Your task to perform on an android device: change the upload size in google photos Image 0: 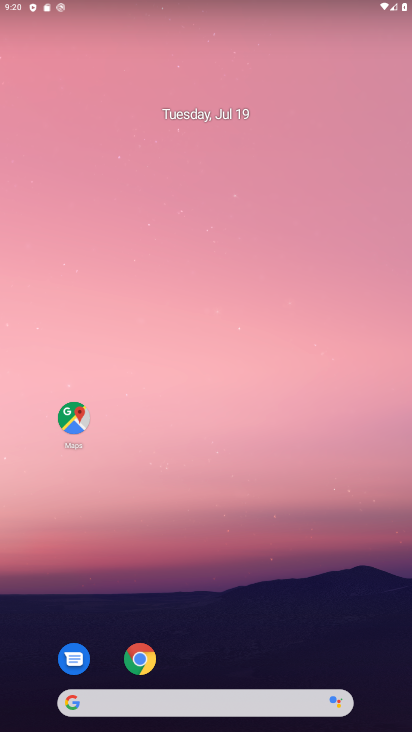
Step 0: drag from (240, 630) to (28, 89)
Your task to perform on an android device: change the upload size in google photos Image 1: 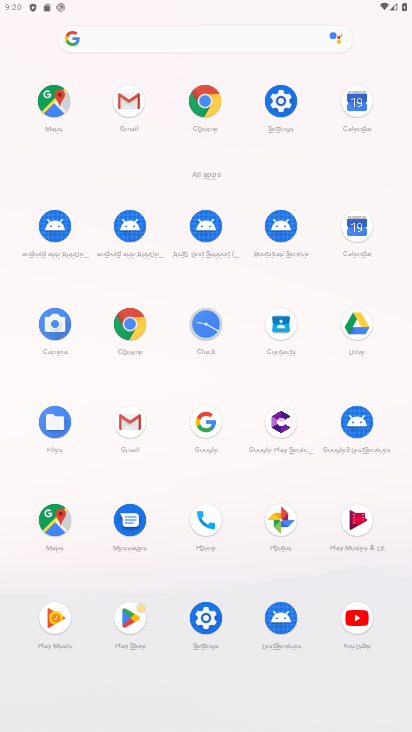
Step 1: click (257, 512)
Your task to perform on an android device: change the upload size in google photos Image 2: 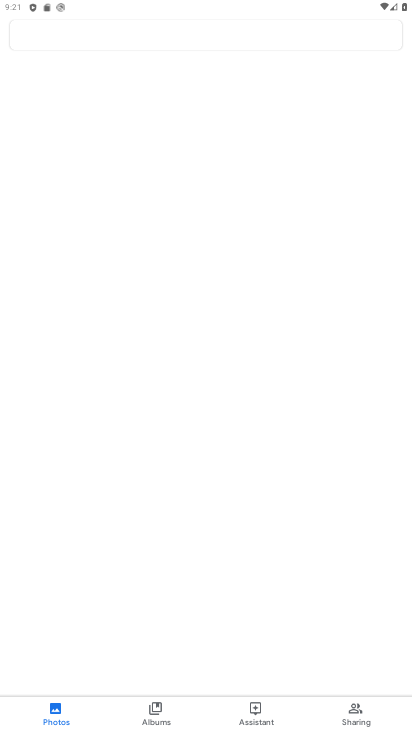
Step 2: drag from (221, 592) to (275, 367)
Your task to perform on an android device: change the upload size in google photos Image 3: 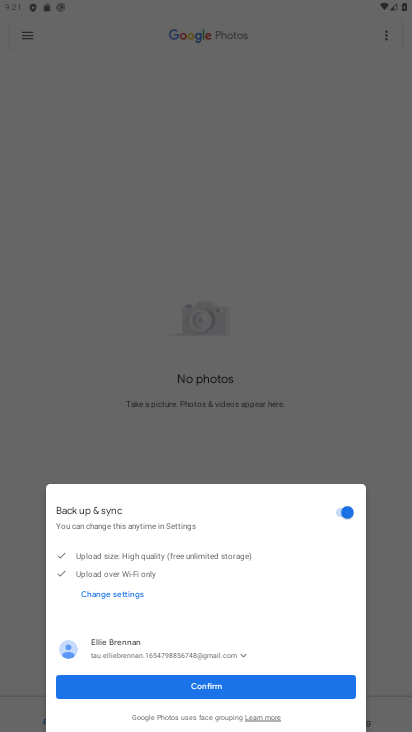
Step 3: click (157, 692)
Your task to perform on an android device: change the upload size in google photos Image 4: 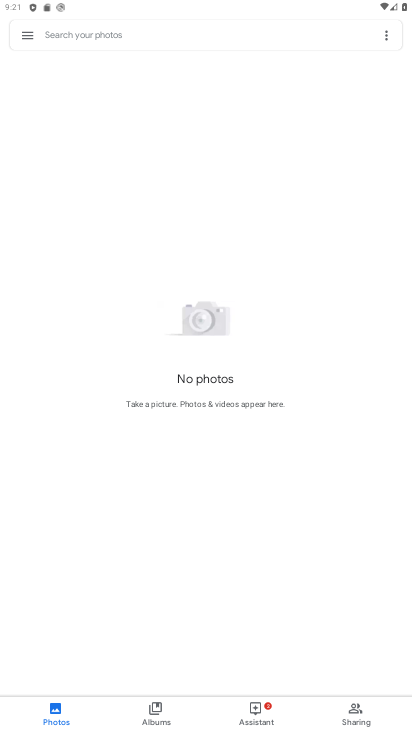
Step 4: drag from (243, 646) to (343, 373)
Your task to perform on an android device: change the upload size in google photos Image 5: 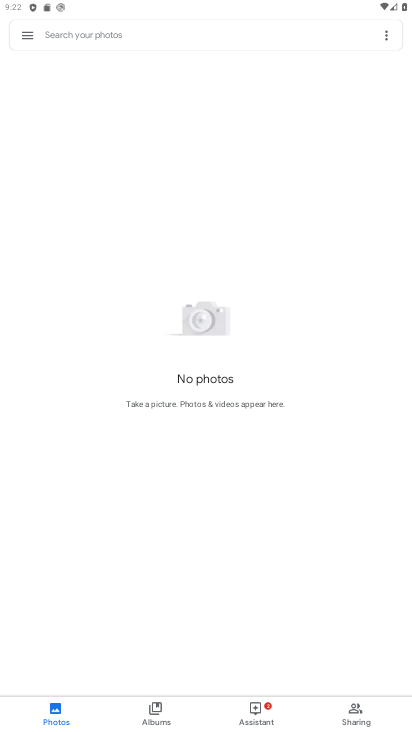
Step 5: drag from (304, 561) to (392, 248)
Your task to perform on an android device: change the upload size in google photos Image 6: 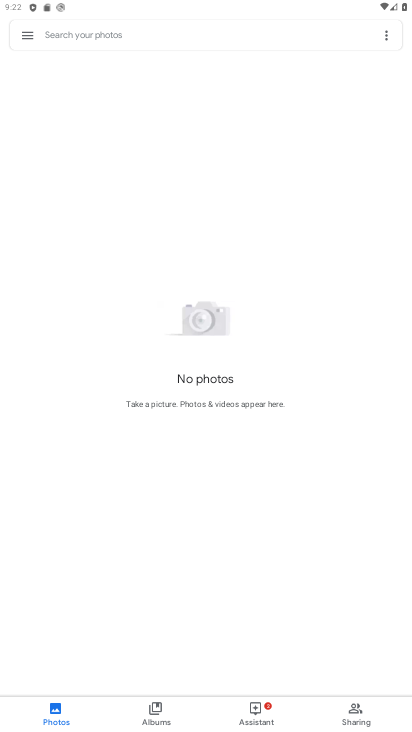
Step 6: click (18, 27)
Your task to perform on an android device: change the upload size in google photos Image 7: 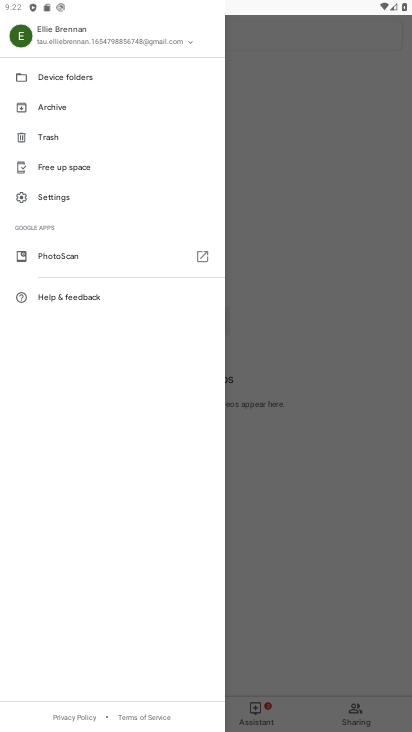
Step 7: click (28, 197)
Your task to perform on an android device: change the upload size in google photos Image 8: 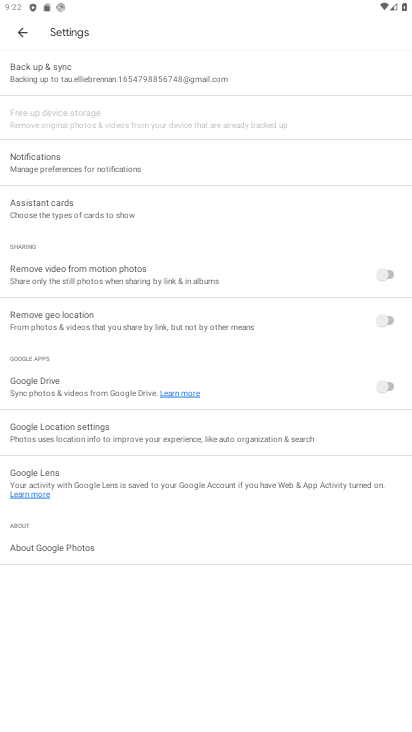
Step 8: drag from (156, 618) to (239, 342)
Your task to perform on an android device: change the upload size in google photos Image 9: 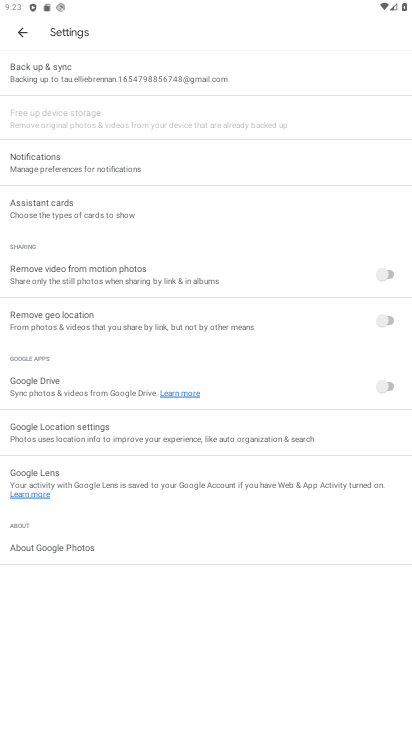
Step 9: drag from (132, 469) to (201, 138)
Your task to perform on an android device: change the upload size in google photos Image 10: 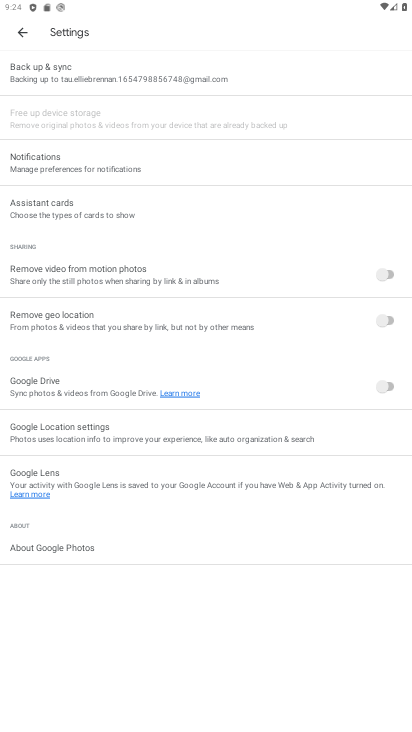
Step 10: click (99, 87)
Your task to perform on an android device: change the upload size in google photos Image 11: 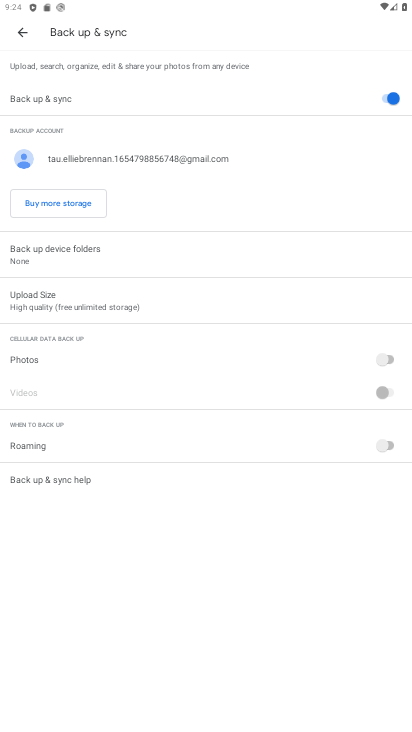
Step 11: drag from (131, 255) to (152, 172)
Your task to perform on an android device: change the upload size in google photos Image 12: 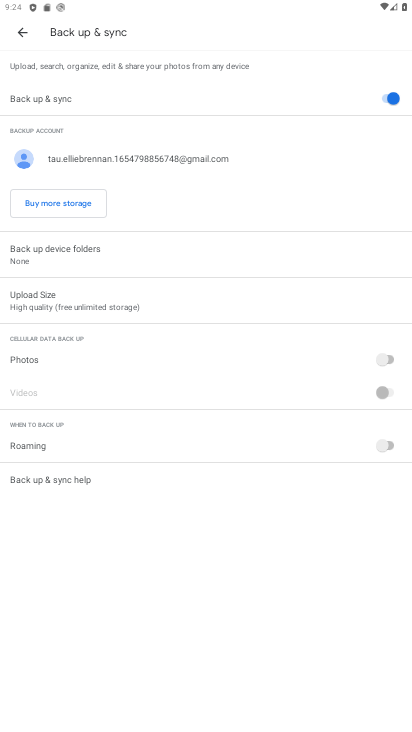
Step 12: drag from (133, 632) to (185, 241)
Your task to perform on an android device: change the upload size in google photos Image 13: 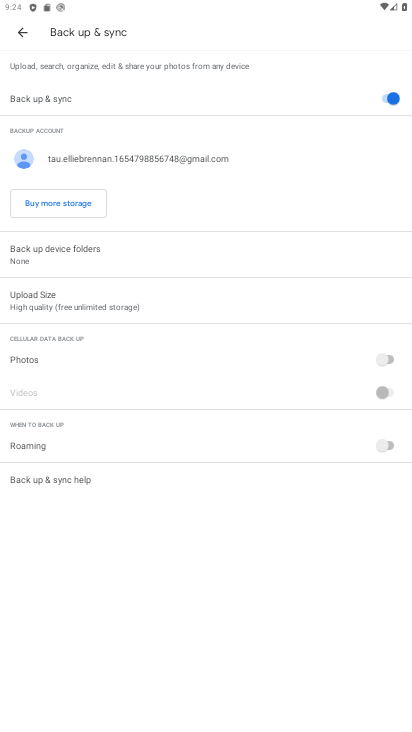
Step 13: click (71, 311)
Your task to perform on an android device: change the upload size in google photos Image 14: 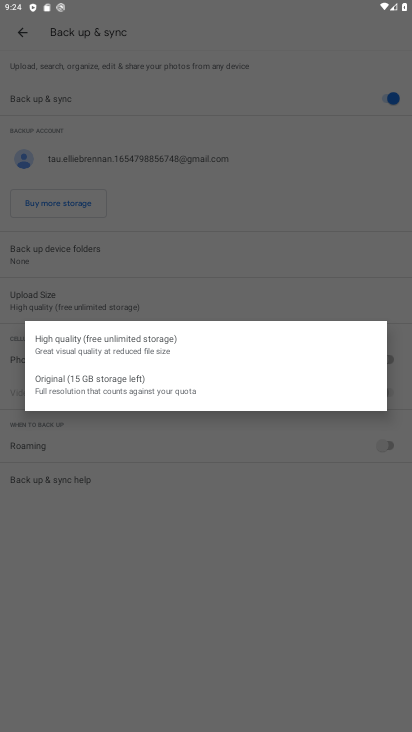
Step 14: click (91, 351)
Your task to perform on an android device: change the upload size in google photos Image 15: 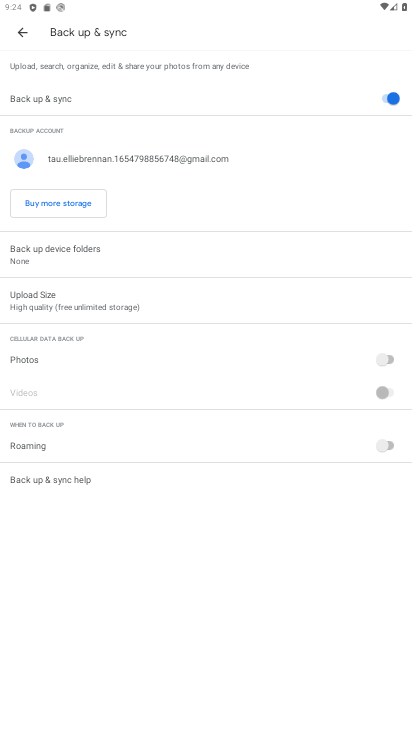
Step 15: task complete